Your task to perform on an android device: change alarm snooze length Image 0: 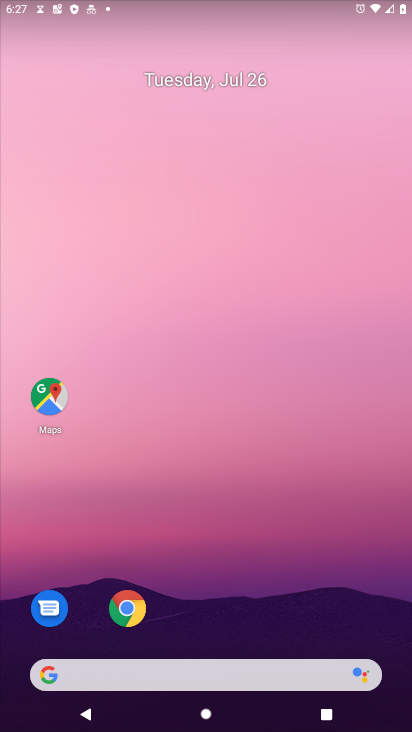
Step 0: press home button
Your task to perform on an android device: change alarm snooze length Image 1: 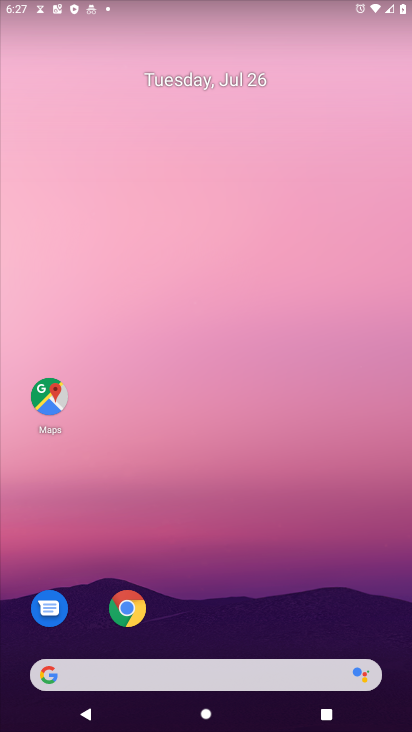
Step 1: press home button
Your task to perform on an android device: change alarm snooze length Image 2: 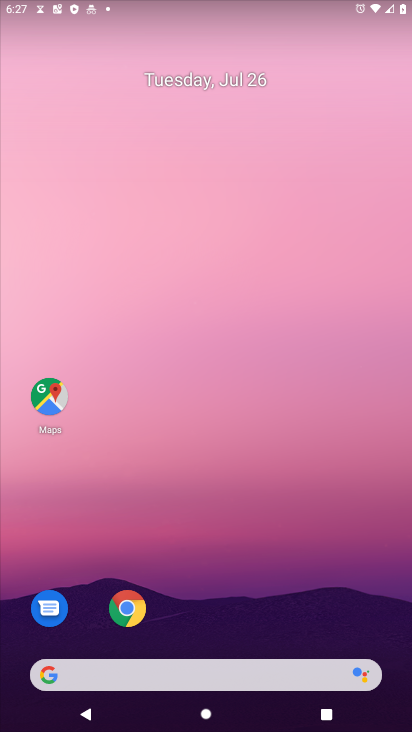
Step 2: drag from (198, 635) to (233, 113)
Your task to perform on an android device: change alarm snooze length Image 3: 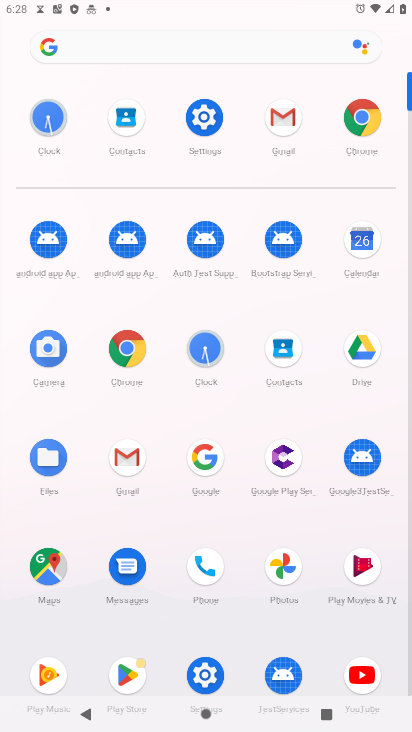
Step 3: click (183, 352)
Your task to perform on an android device: change alarm snooze length Image 4: 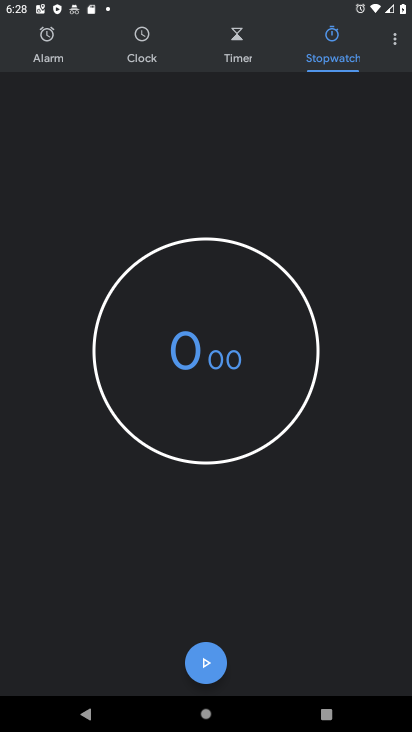
Step 4: click (394, 39)
Your task to perform on an android device: change alarm snooze length Image 5: 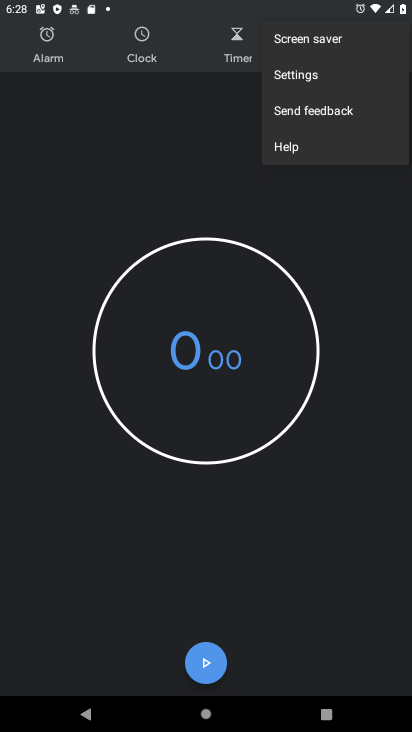
Step 5: click (303, 83)
Your task to perform on an android device: change alarm snooze length Image 6: 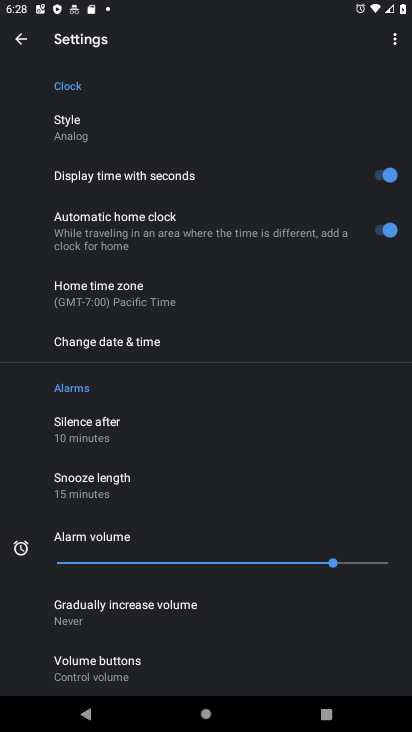
Step 6: click (99, 478)
Your task to perform on an android device: change alarm snooze length Image 7: 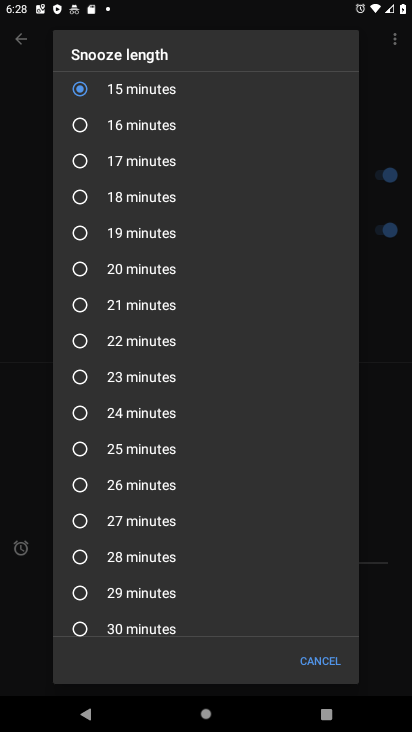
Step 7: click (89, 132)
Your task to perform on an android device: change alarm snooze length Image 8: 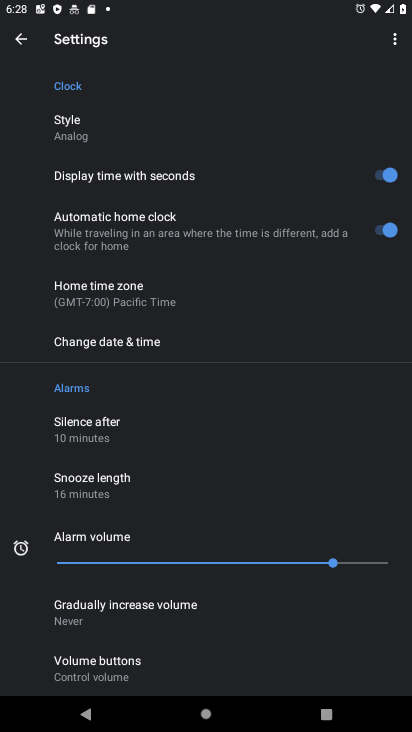
Step 8: task complete